Your task to perform on an android device: toggle priority inbox in the gmail app Image 0: 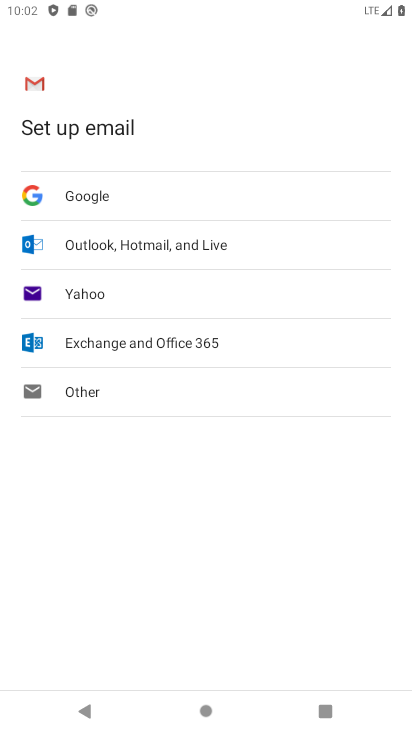
Step 0: press home button
Your task to perform on an android device: toggle priority inbox in the gmail app Image 1: 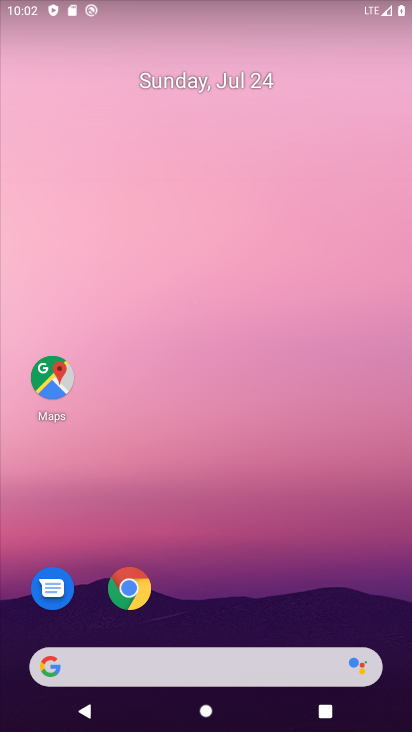
Step 1: drag from (169, 674) to (277, 6)
Your task to perform on an android device: toggle priority inbox in the gmail app Image 2: 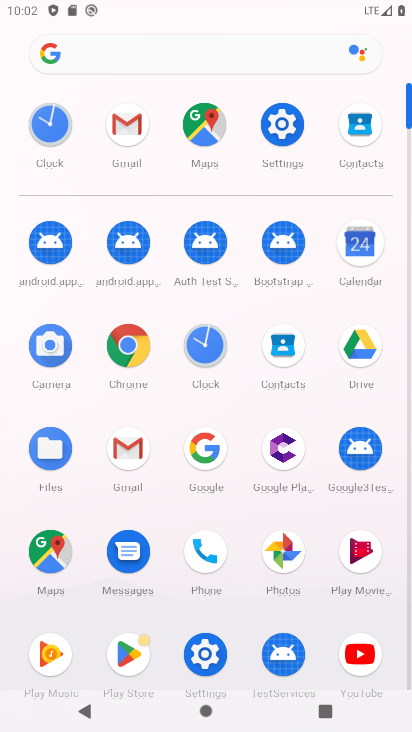
Step 2: click (127, 125)
Your task to perform on an android device: toggle priority inbox in the gmail app Image 3: 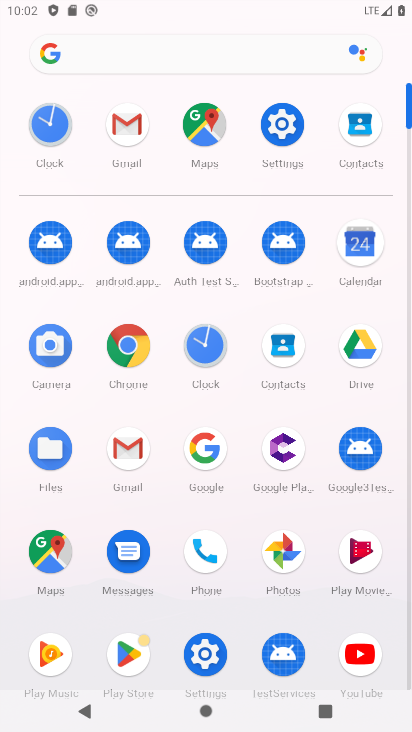
Step 3: click (127, 125)
Your task to perform on an android device: toggle priority inbox in the gmail app Image 4: 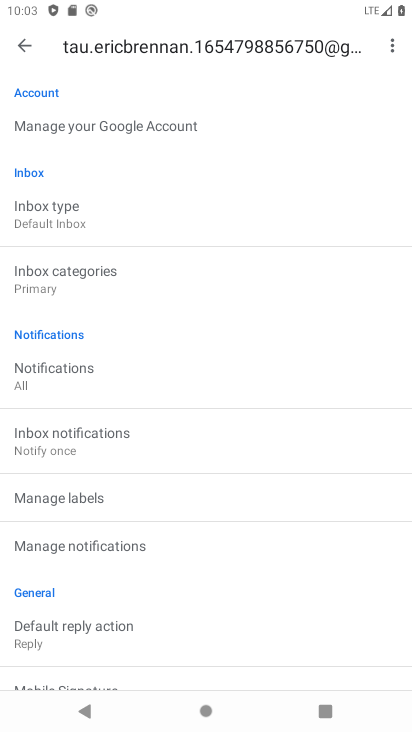
Step 4: click (61, 212)
Your task to perform on an android device: toggle priority inbox in the gmail app Image 5: 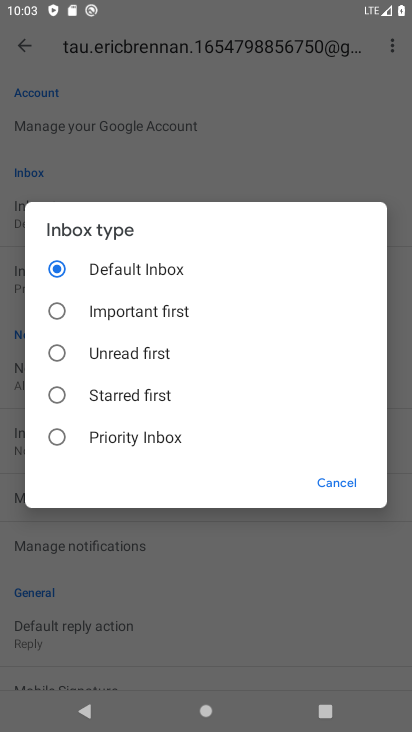
Step 5: click (156, 434)
Your task to perform on an android device: toggle priority inbox in the gmail app Image 6: 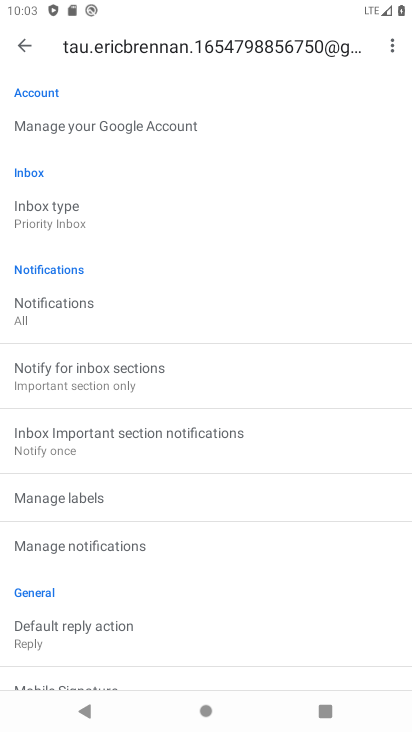
Step 6: task complete